Your task to perform on an android device: Toggle the flashlight Image 0: 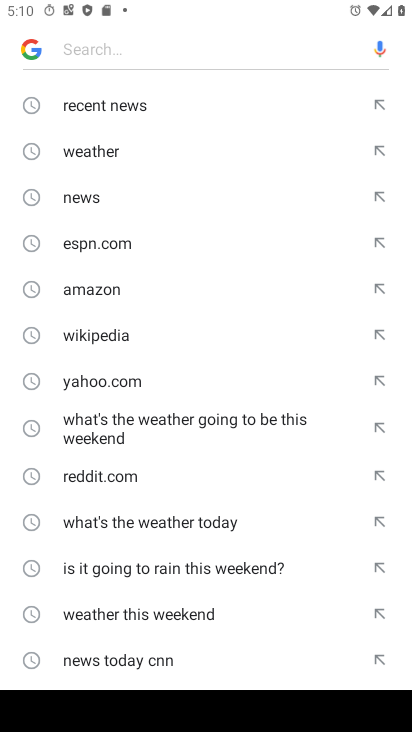
Step 0: press home button
Your task to perform on an android device: Toggle the flashlight Image 1: 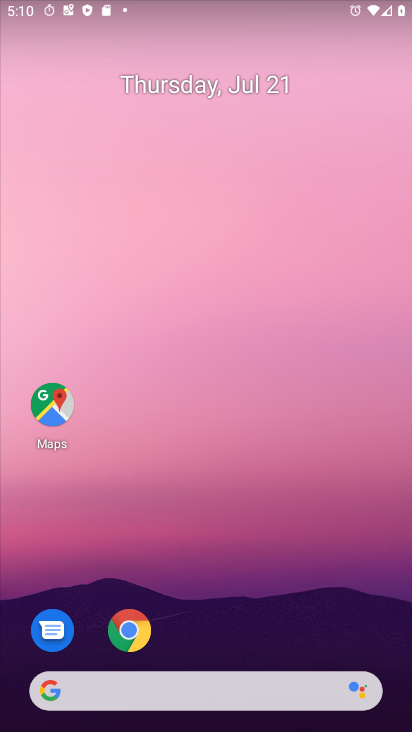
Step 1: drag from (214, 690) to (201, 269)
Your task to perform on an android device: Toggle the flashlight Image 2: 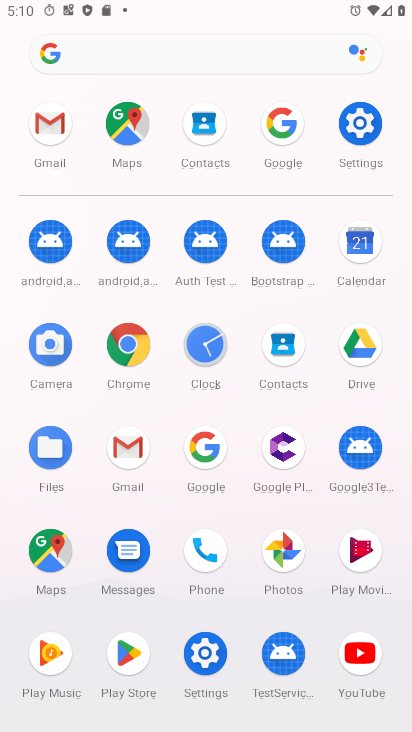
Step 2: click (359, 123)
Your task to perform on an android device: Toggle the flashlight Image 3: 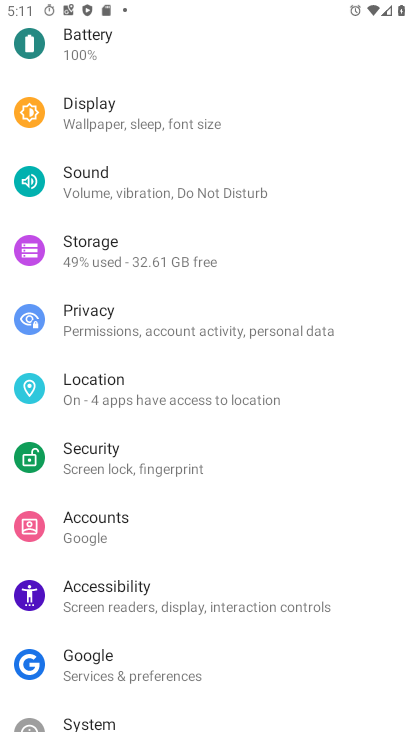
Step 3: click (173, 122)
Your task to perform on an android device: Toggle the flashlight Image 4: 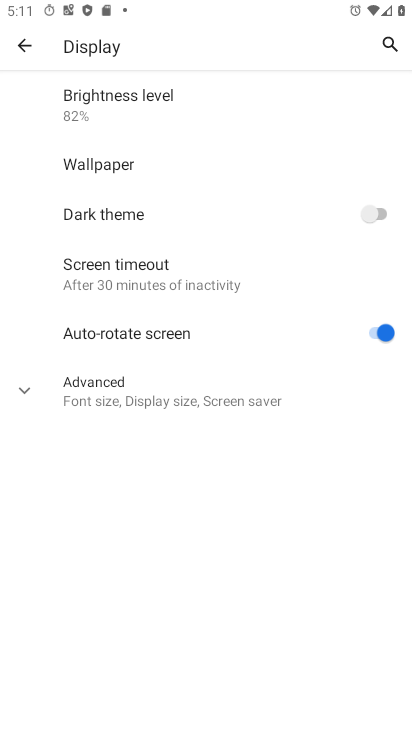
Step 4: press back button
Your task to perform on an android device: Toggle the flashlight Image 5: 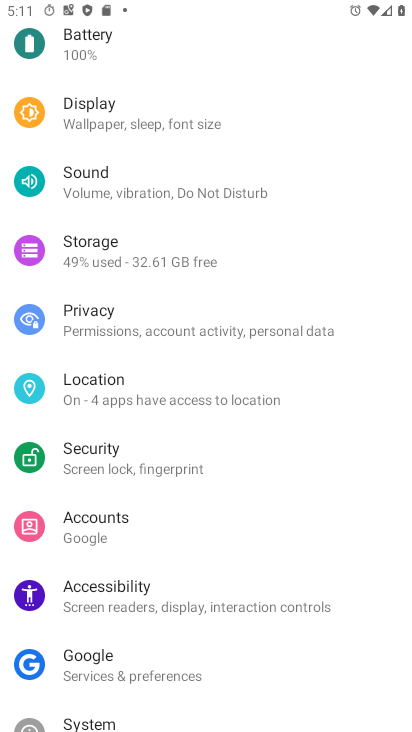
Step 5: click (170, 200)
Your task to perform on an android device: Toggle the flashlight Image 6: 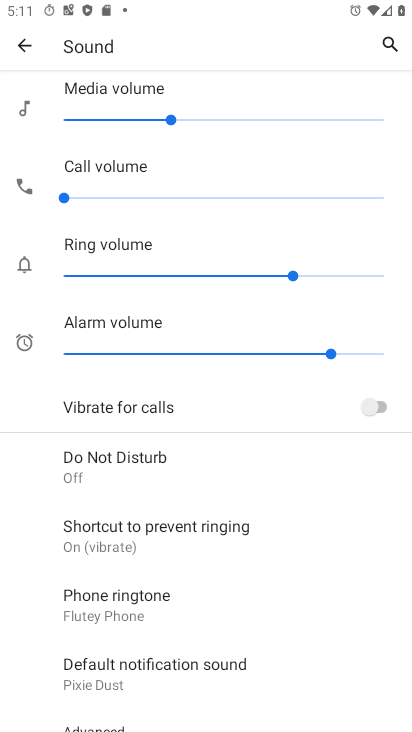
Step 6: click (387, 43)
Your task to perform on an android device: Toggle the flashlight Image 7: 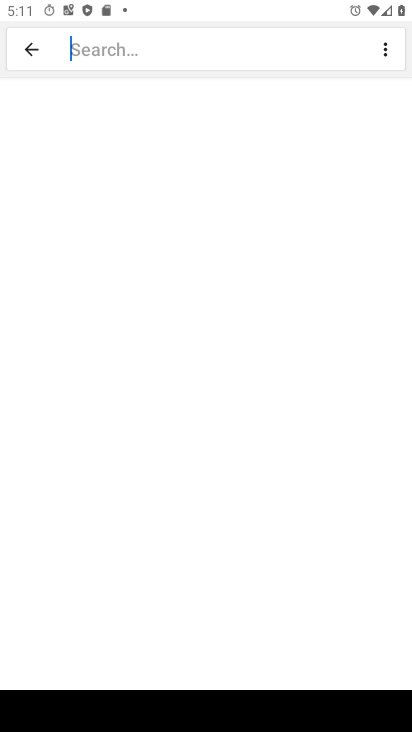
Step 7: type "flashlight"
Your task to perform on an android device: Toggle the flashlight Image 8: 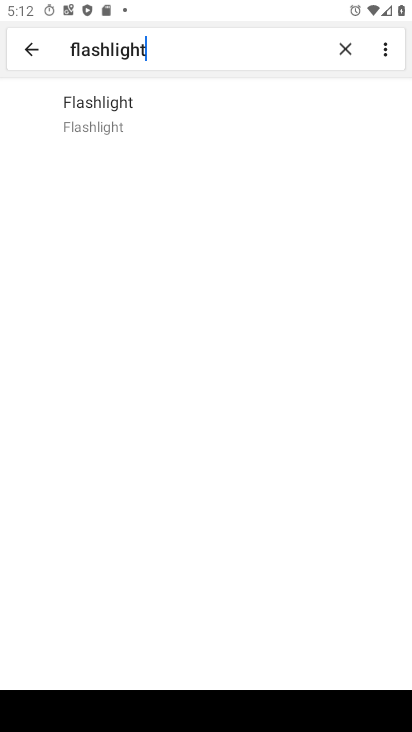
Step 8: click (101, 118)
Your task to perform on an android device: Toggle the flashlight Image 9: 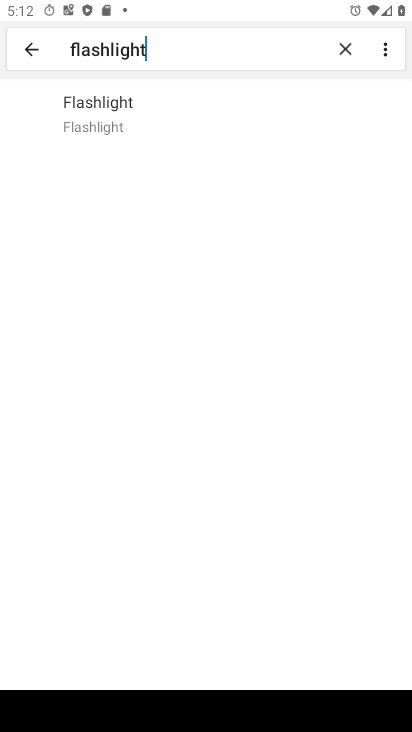
Step 9: task complete